Your task to perform on an android device: Is it going to rain this weekend? Image 0: 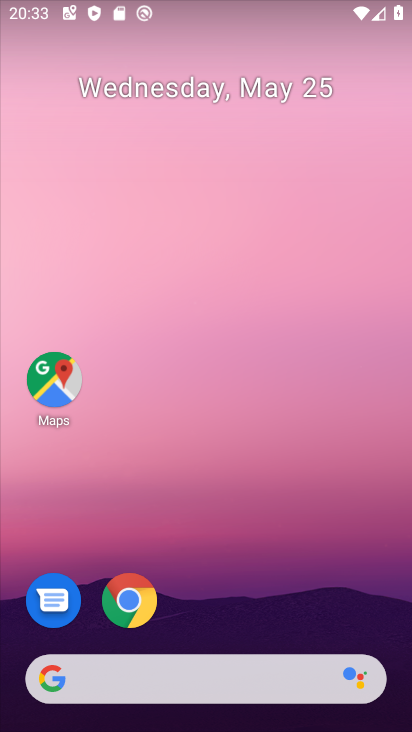
Step 0: drag from (294, 518) to (277, 197)
Your task to perform on an android device: Is it going to rain this weekend? Image 1: 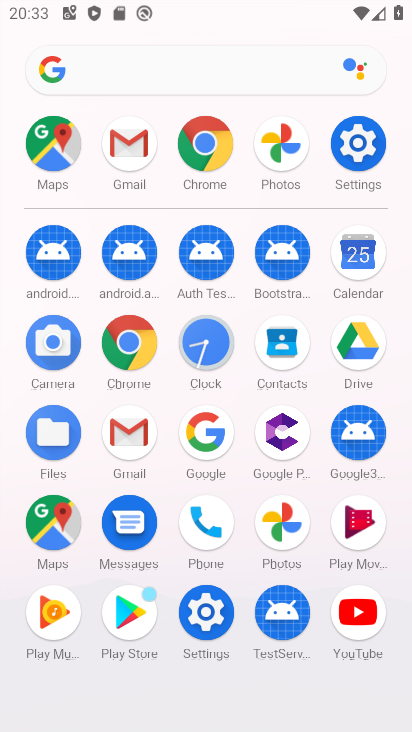
Step 1: click (137, 355)
Your task to perform on an android device: Is it going to rain this weekend? Image 2: 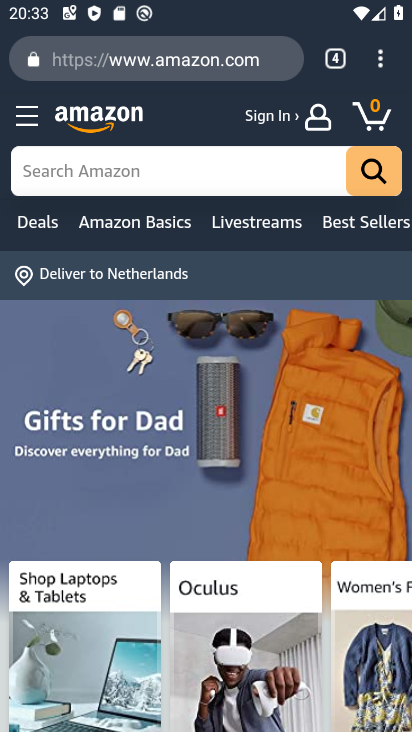
Step 2: click (176, 71)
Your task to perform on an android device: Is it going to rain this weekend? Image 3: 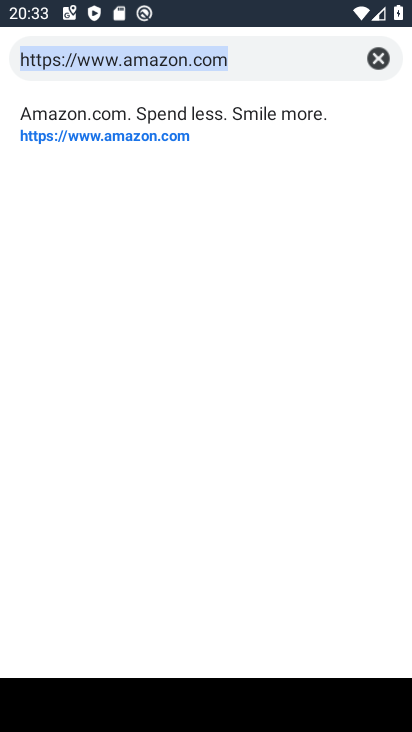
Step 3: click (380, 61)
Your task to perform on an android device: Is it going to rain this weekend? Image 4: 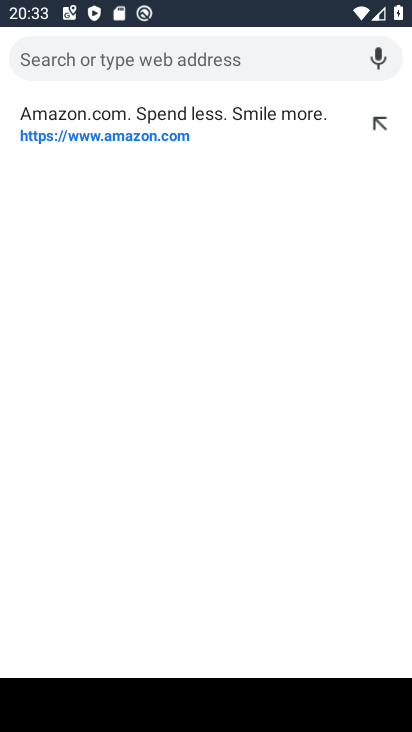
Step 4: type "is it going to rain this weekend "
Your task to perform on an android device: Is it going to rain this weekend? Image 5: 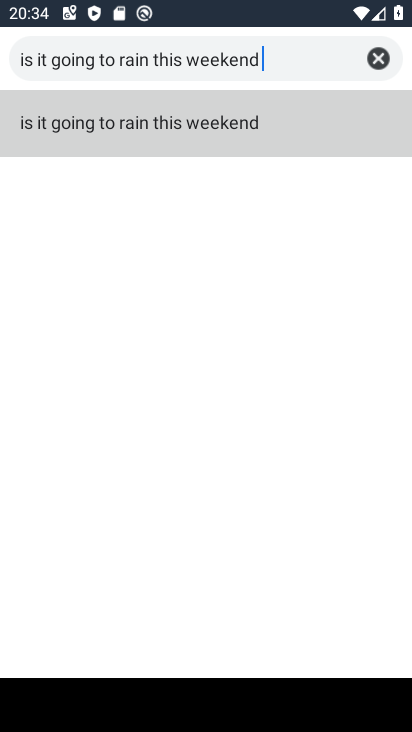
Step 5: click (266, 142)
Your task to perform on an android device: Is it going to rain this weekend? Image 6: 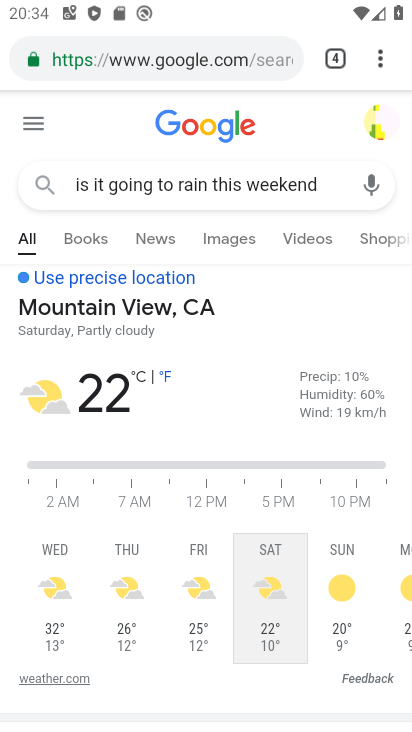
Step 6: task complete